Your task to perform on an android device: Open my contact list Image 0: 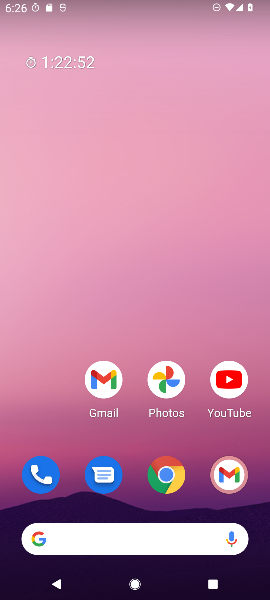
Step 0: press home button
Your task to perform on an android device: Open my contact list Image 1: 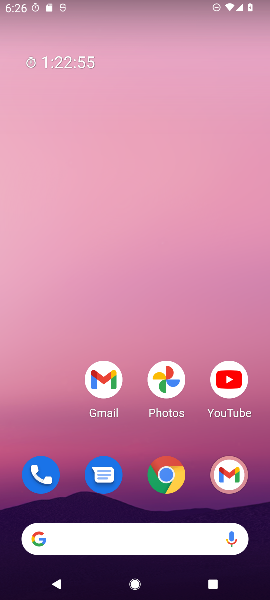
Step 1: drag from (56, 423) to (45, 156)
Your task to perform on an android device: Open my contact list Image 2: 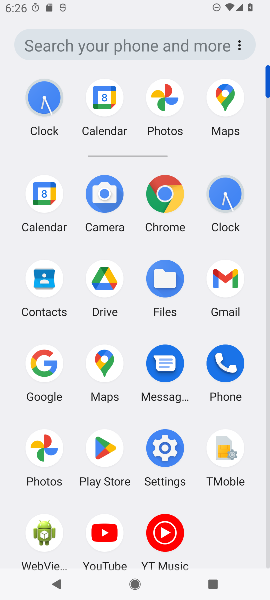
Step 2: click (42, 278)
Your task to perform on an android device: Open my contact list Image 3: 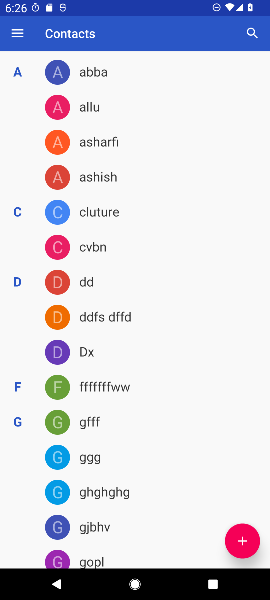
Step 3: task complete